Your task to perform on an android device: When is my next appointment? Image 0: 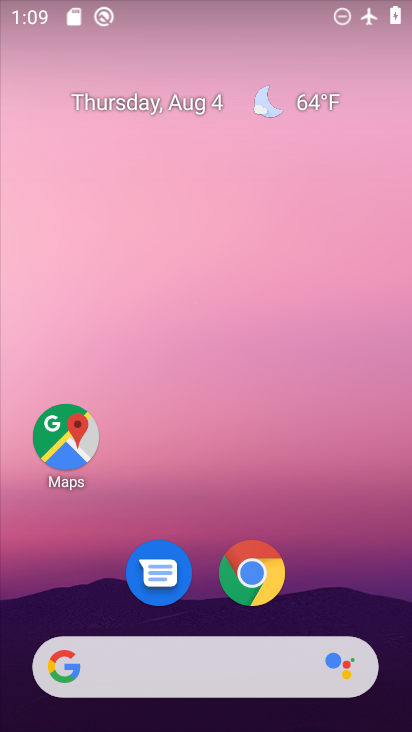
Step 0: drag from (346, 563) to (338, 31)
Your task to perform on an android device: When is my next appointment? Image 1: 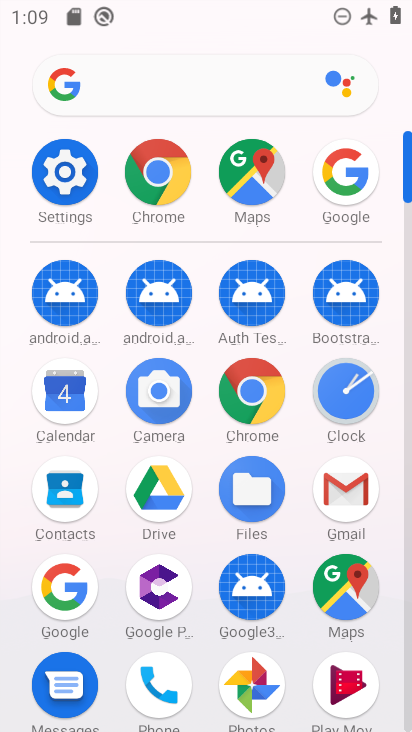
Step 1: click (48, 397)
Your task to perform on an android device: When is my next appointment? Image 2: 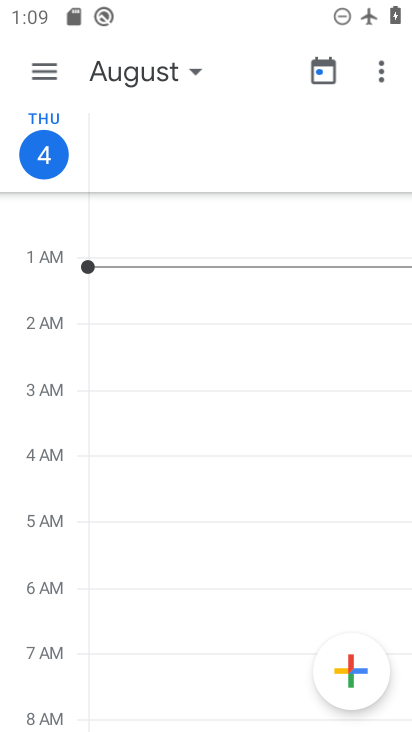
Step 2: click (27, 65)
Your task to perform on an android device: When is my next appointment? Image 3: 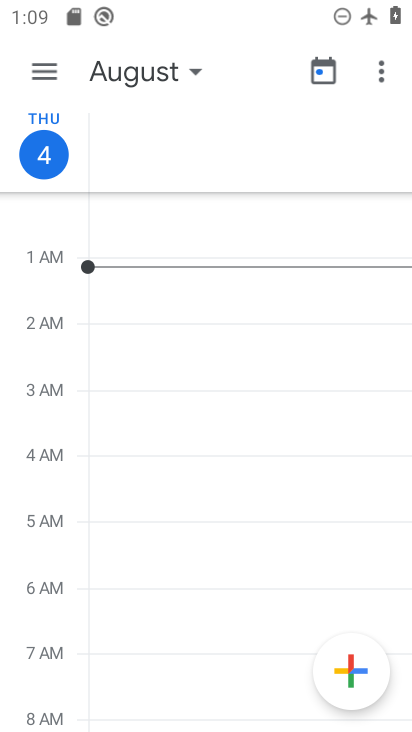
Step 3: click (41, 68)
Your task to perform on an android device: When is my next appointment? Image 4: 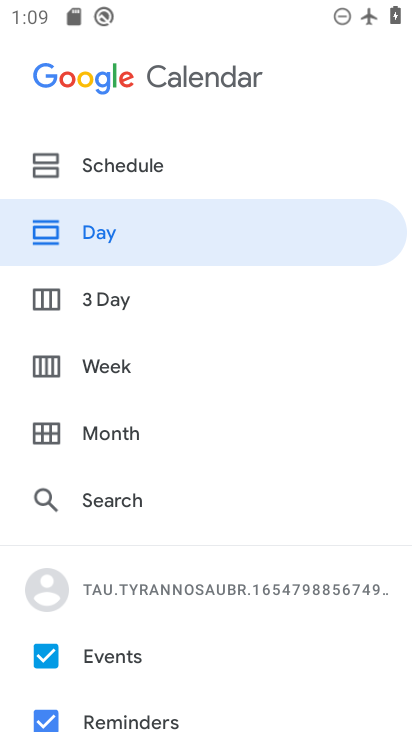
Step 4: click (141, 304)
Your task to perform on an android device: When is my next appointment? Image 5: 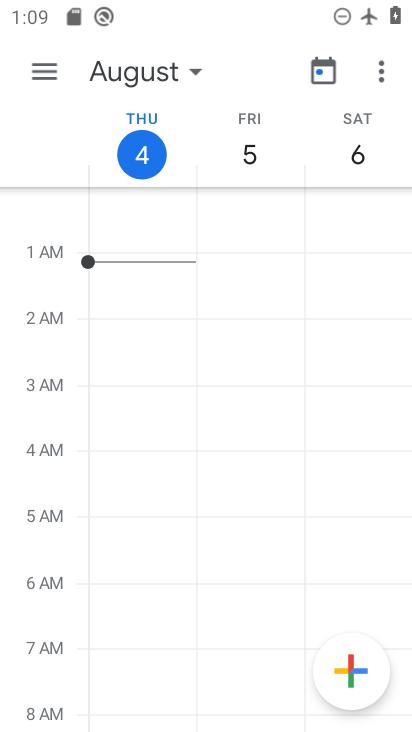
Step 5: task complete